Your task to perform on an android device: move an email to a new category in the gmail app Image 0: 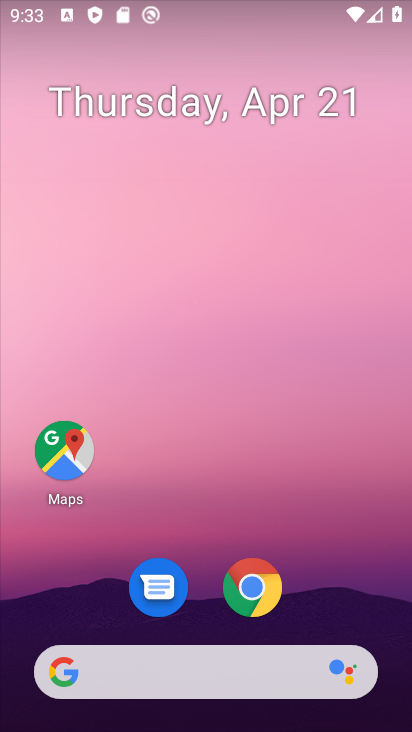
Step 0: drag from (66, 514) to (291, 162)
Your task to perform on an android device: move an email to a new category in the gmail app Image 1: 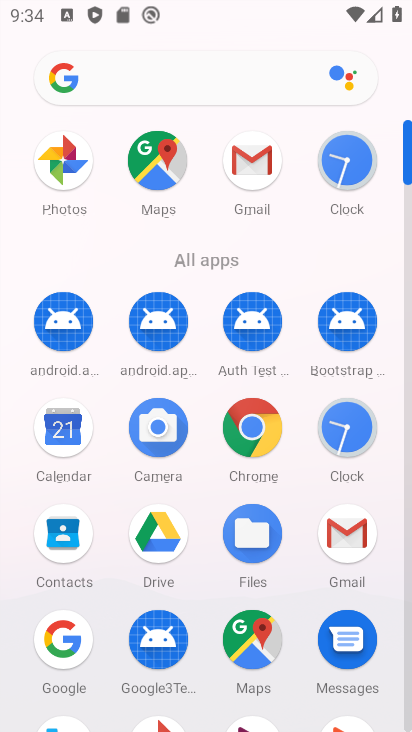
Step 1: click (248, 166)
Your task to perform on an android device: move an email to a new category in the gmail app Image 2: 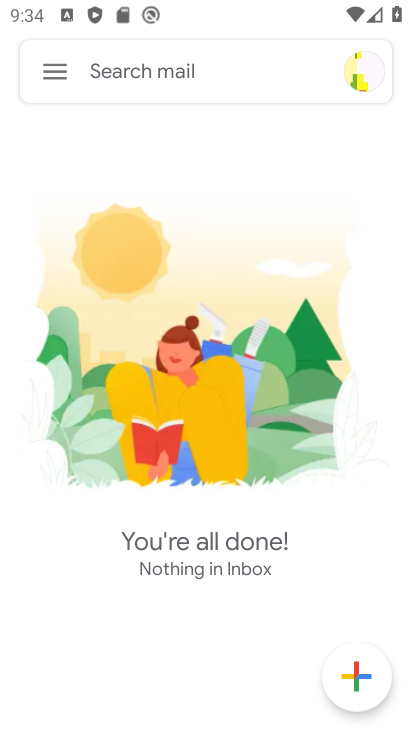
Step 2: click (58, 64)
Your task to perform on an android device: move an email to a new category in the gmail app Image 3: 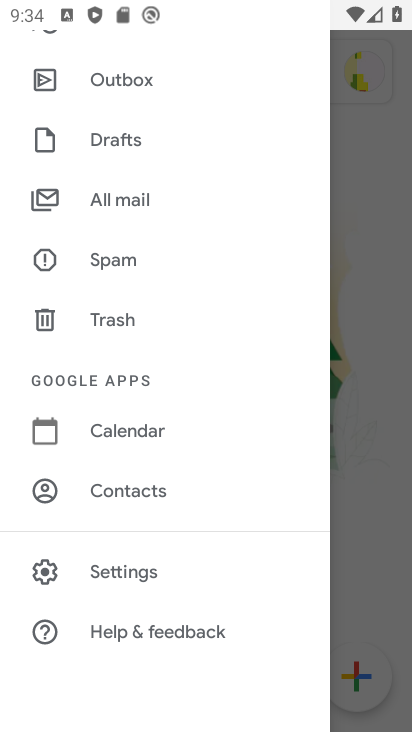
Step 3: click (74, 200)
Your task to perform on an android device: move an email to a new category in the gmail app Image 4: 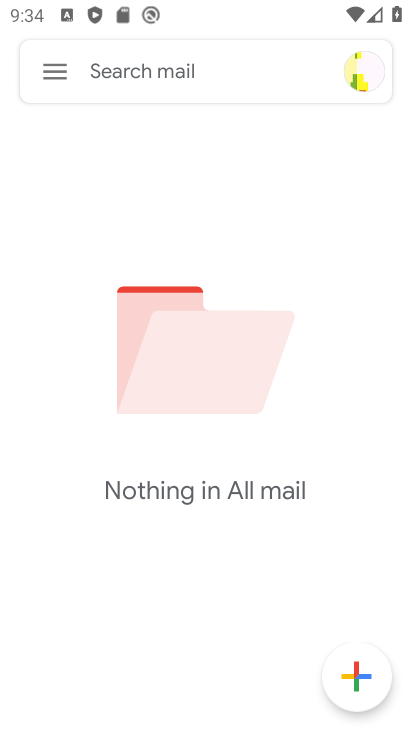
Step 4: task complete